Your task to perform on an android device: search for starred emails in the gmail app Image 0: 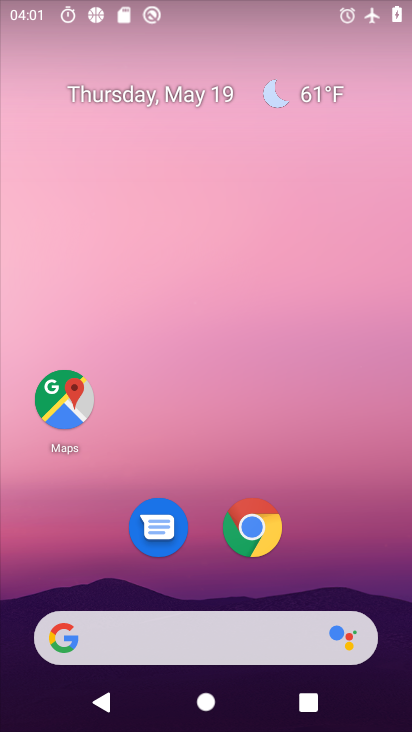
Step 0: drag from (214, 608) to (221, 164)
Your task to perform on an android device: search for starred emails in the gmail app Image 1: 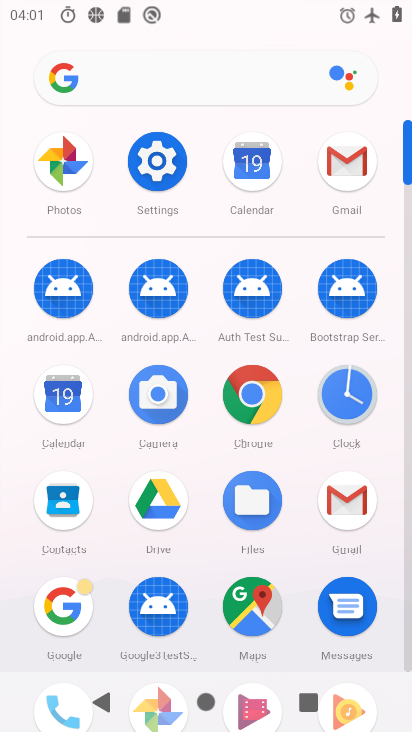
Step 1: click (353, 161)
Your task to perform on an android device: search for starred emails in the gmail app Image 2: 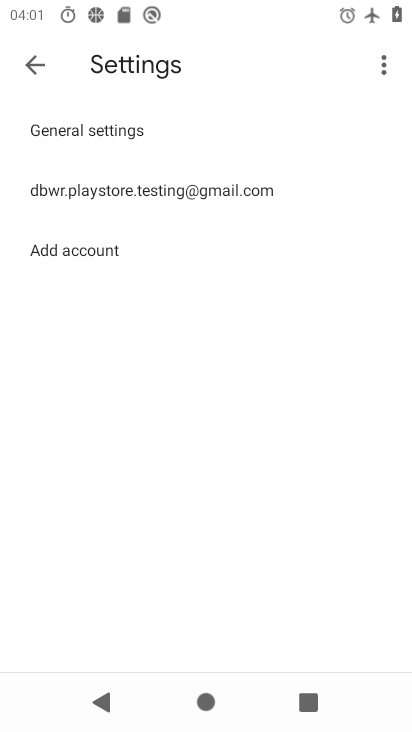
Step 2: click (42, 63)
Your task to perform on an android device: search for starred emails in the gmail app Image 3: 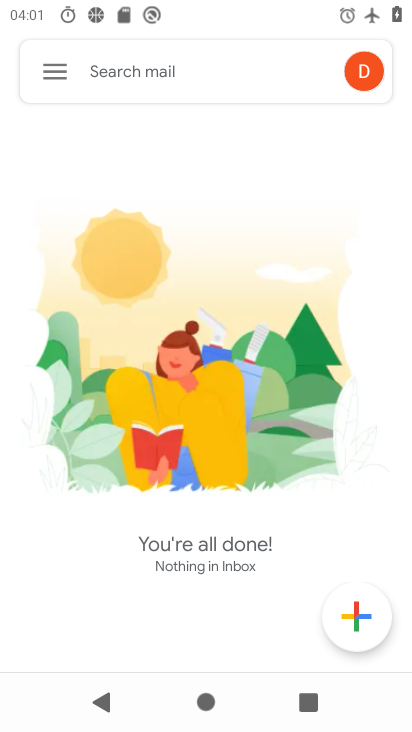
Step 3: click (45, 63)
Your task to perform on an android device: search for starred emails in the gmail app Image 4: 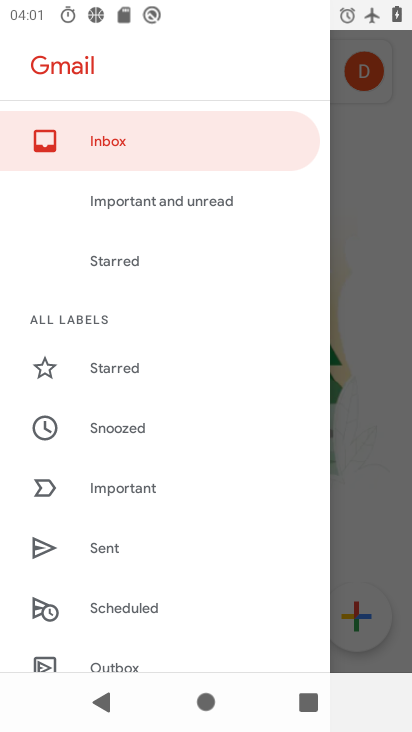
Step 4: click (106, 375)
Your task to perform on an android device: search for starred emails in the gmail app Image 5: 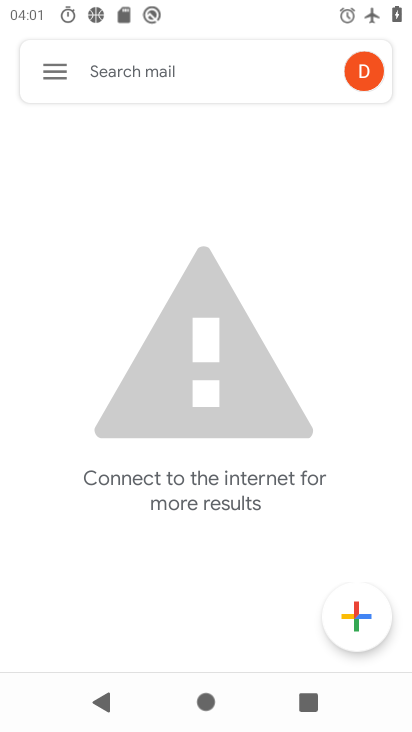
Step 5: task complete